Your task to perform on an android device: move an email to a new category in the gmail app Image 0: 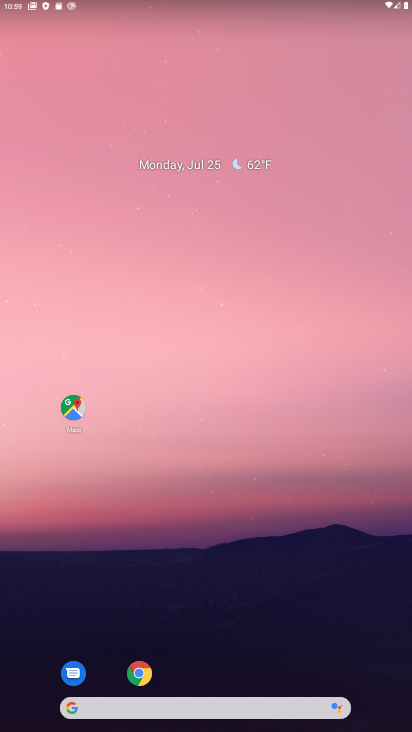
Step 0: drag from (224, 669) to (205, 27)
Your task to perform on an android device: move an email to a new category in the gmail app Image 1: 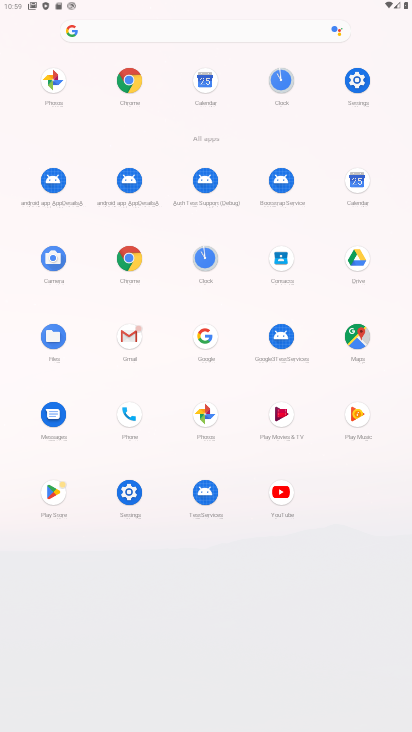
Step 1: click (131, 341)
Your task to perform on an android device: move an email to a new category in the gmail app Image 2: 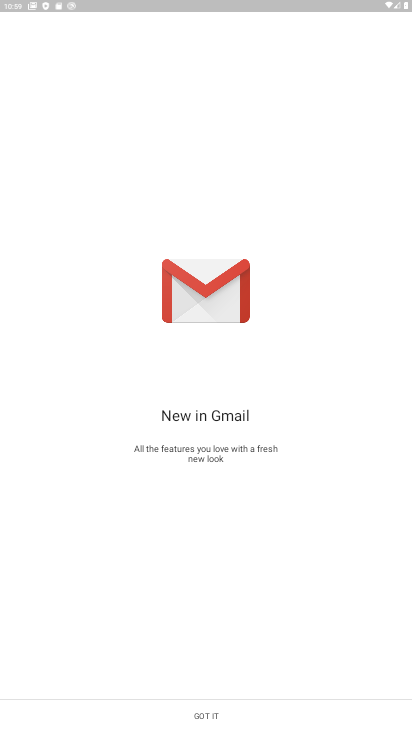
Step 2: click (264, 720)
Your task to perform on an android device: move an email to a new category in the gmail app Image 3: 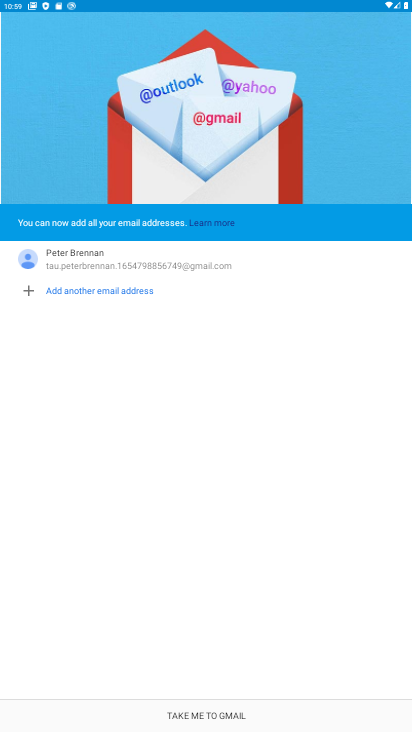
Step 3: click (268, 715)
Your task to perform on an android device: move an email to a new category in the gmail app Image 4: 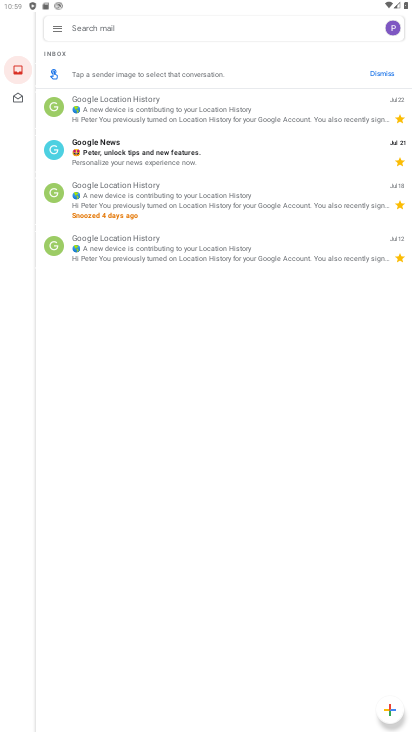
Step 4: click (125, 109)
Your task to perform on an android device: move an email to a new category in the gmail app Image 5: 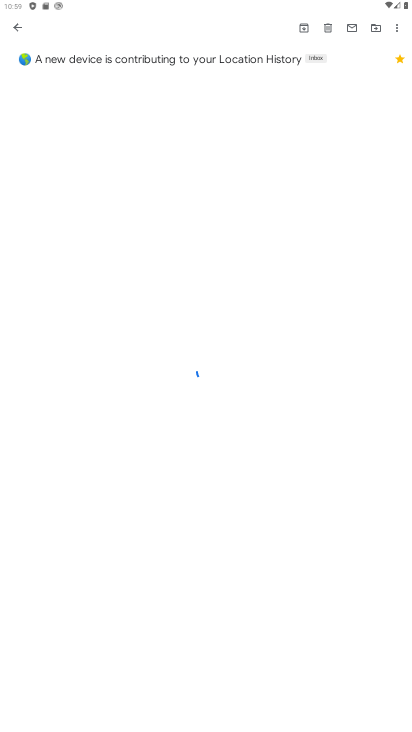
Step 5: click (398, 25)
Your task to perform on an android device: move an email to a new category in the gmail app Image 6: 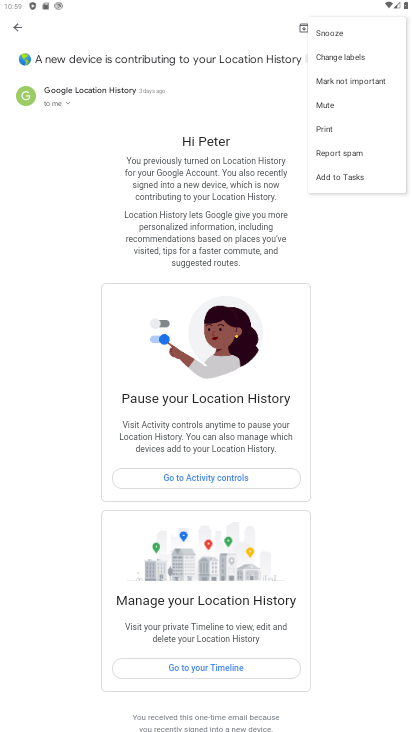
Step 6: click (342, 80)
Your task to perform on an android device: move an email to a new category in the gmail app Image 7: 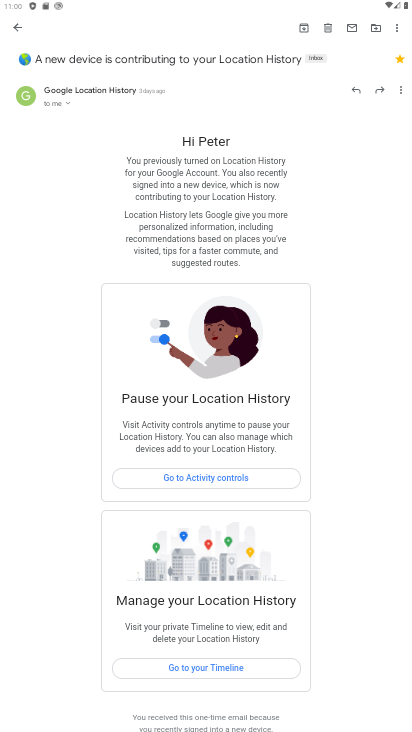
Step 7: task complete